Your task to perform on an android device: check the backup settings in the google photos Image 0: 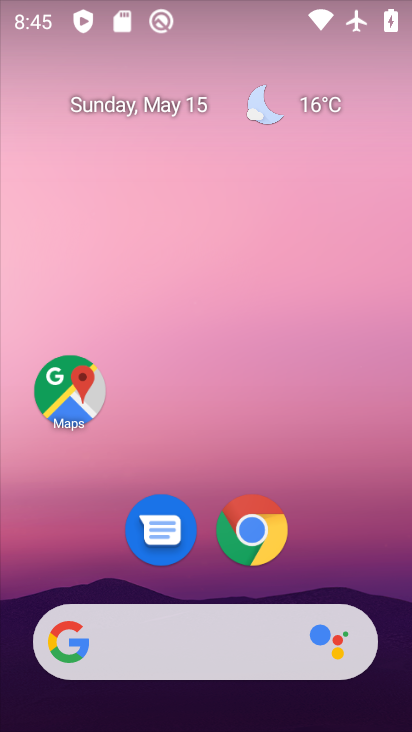
Step 0: drag from (227, 719) to (265, 155)
Your task to perform on an android device: check the backup settings in the google photos Image 1: 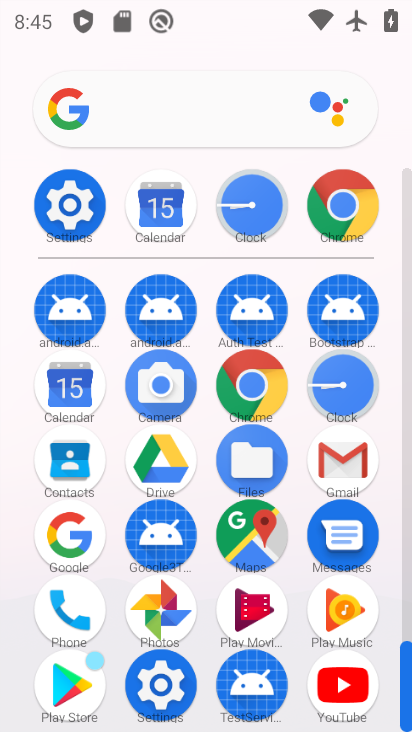
Step 1: click (158, 609)
Your task to perform on an android device: check the backup settings in the google photos Image 2: 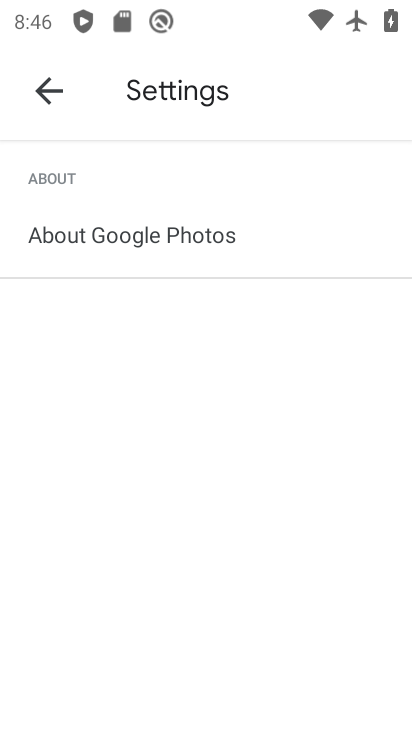
Step 2: click (49, 83)
Your task to perform on an android device: check the backup settings in the google photos Image 3: 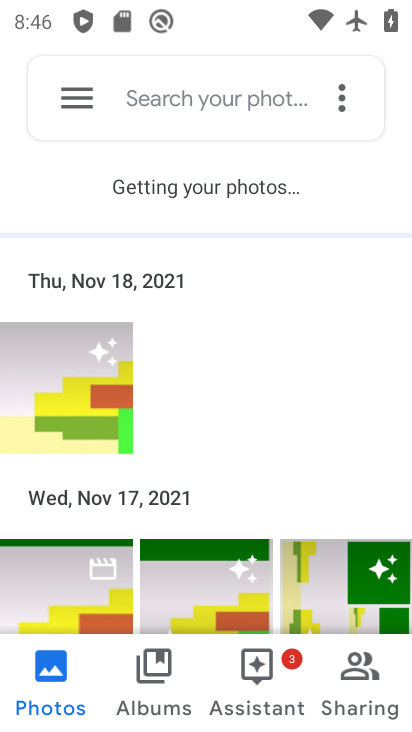
Step 3: click (70, 96)
Your task to perform on an android device: check the backup settings in the google photos Image 4: 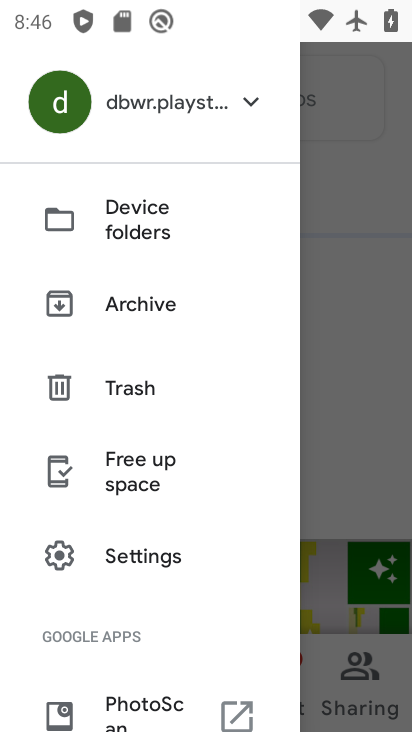
Step 4: click (125, 554)
Your task to perform on an android device: check the backup settings in the google photos Image 5: 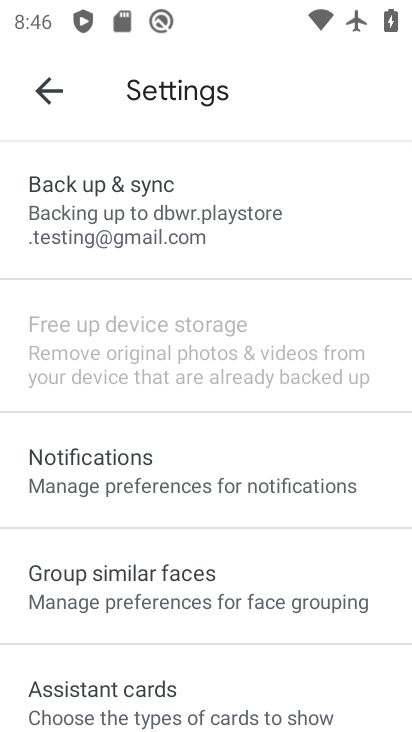
Step 5: click (82, 224)
Your task to perform on an android device: check the backup settings in the google photos Image 6: 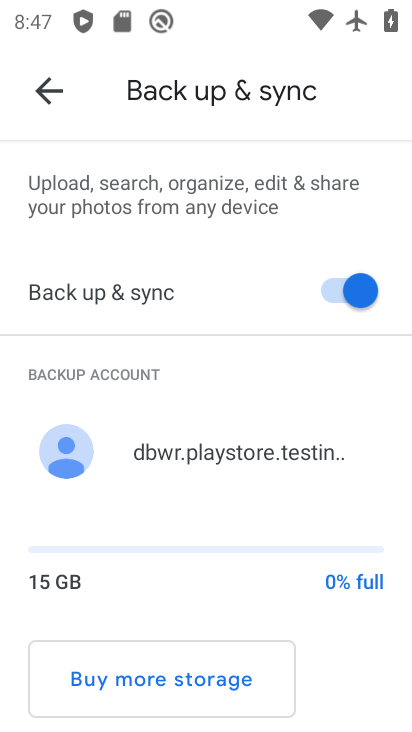
Step 6: task complete